Your task to perform on an android device: turn off improve location accuracy Image 0: 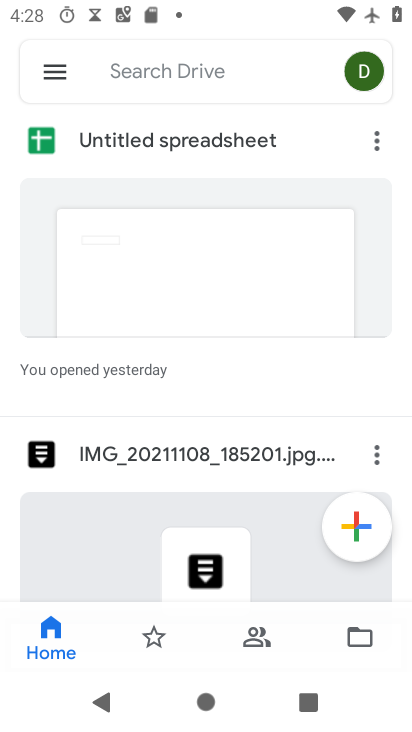
Step 0: press home button
Your task to perform on an android device: turn off improve location accuracy Image 1: 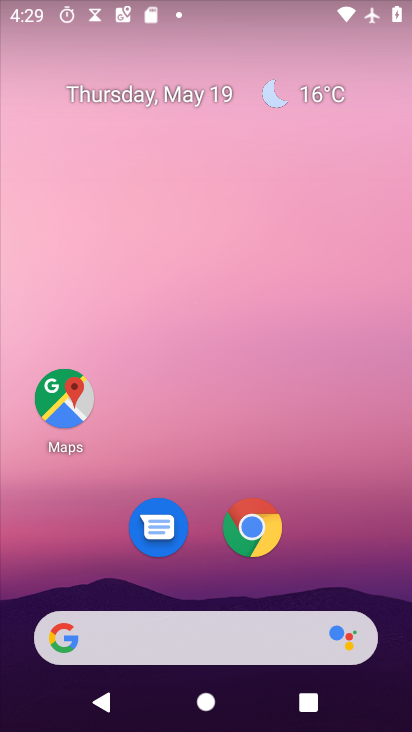
Step 1: drag from (329, 565) to (252, 79)
Your task to perform on an android device: turn off improve location accuracy Image 2: 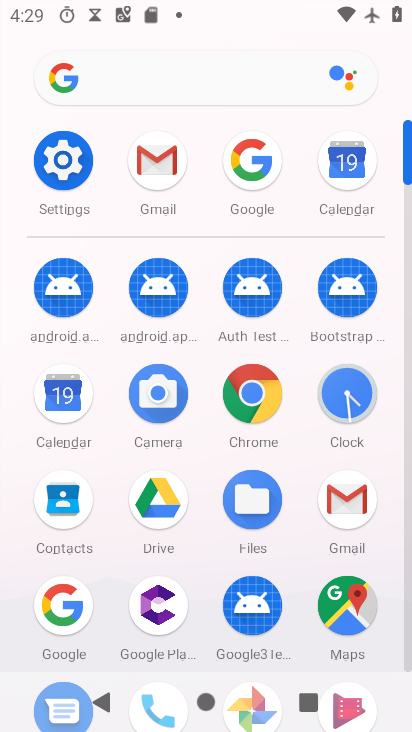
Step 2: click (62, 171)
Your task to perform on an android device: turn off improve location accuracy Image 3: 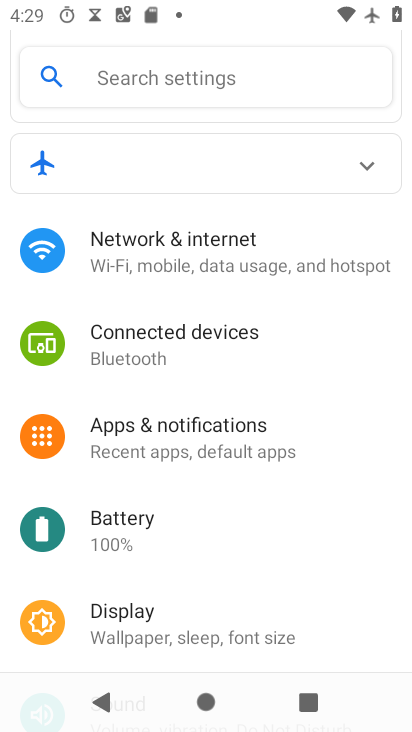
Step 3: drag from (244, 567) to (179, 82)
Your task to perform on an android device: turn off improve location accuracy Image 4: 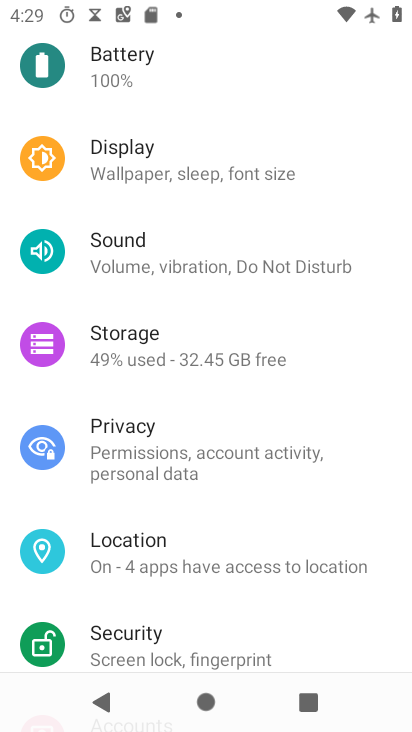
Step 4: click (196, 560)
Your task to perform on an android device: turn off improve location accuracy Image 5: 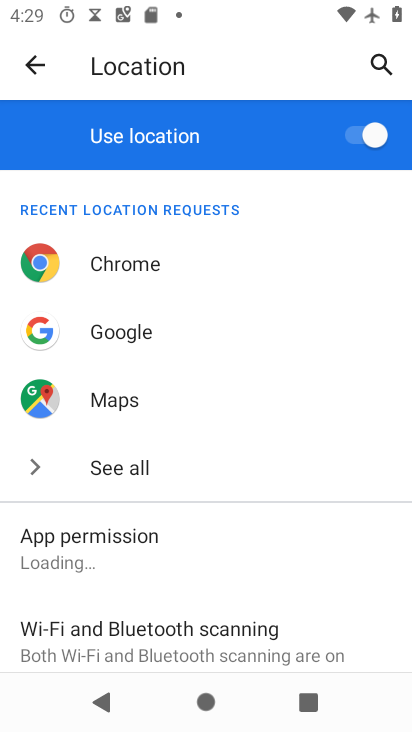
Step 5: drag from (239, 544) to (250, 120)
Your task to perform on an android device: turn off improve location accuracy Image 6: 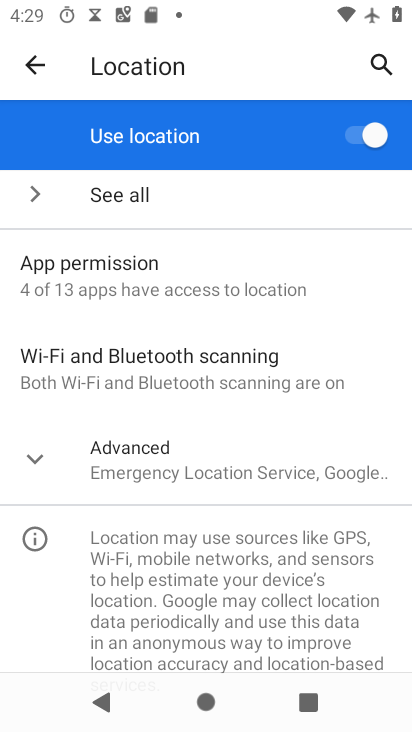
Step 6: click (194, 443)
Your task to perform on an android device: turn off improve location accuracy Image 7: 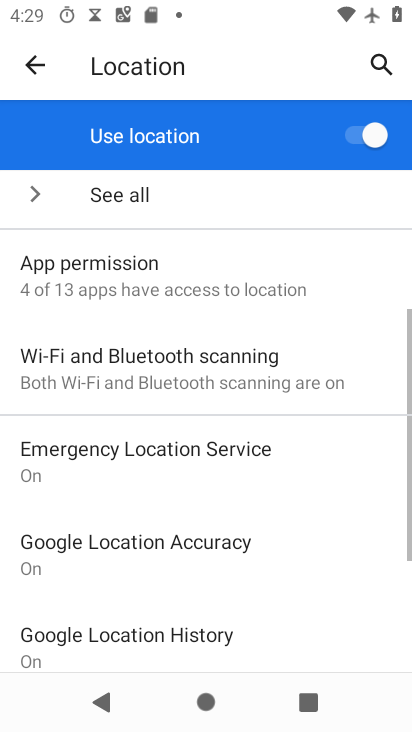
Step 7: click (204, 538)
Your task to perform on an android device: turn off improve location accuracy Image 8: 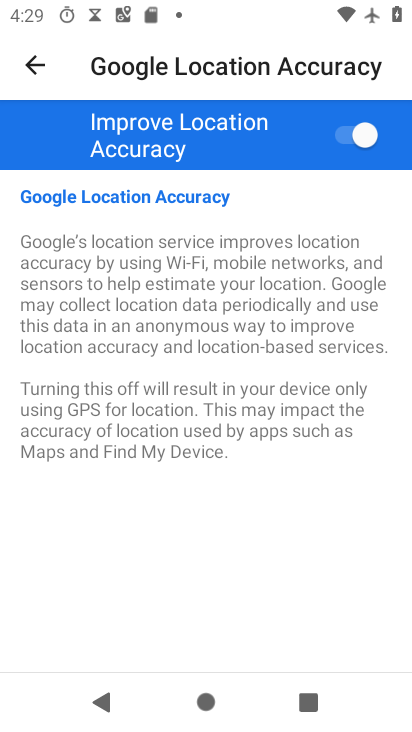
Step 8: click (373, 124)
Your task to perform on an android device: turn off improve location accuracy Image 9: 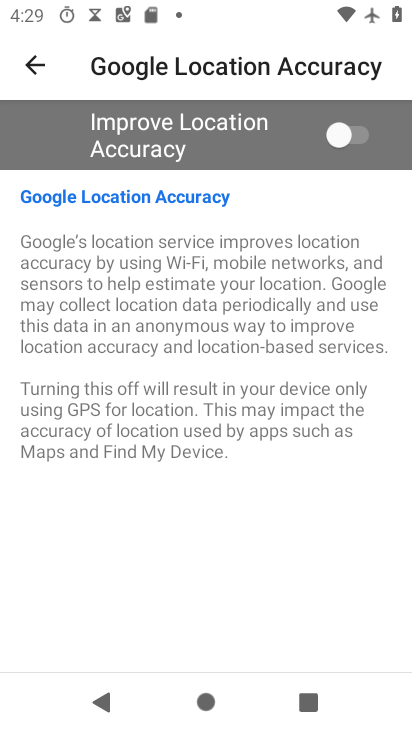
Step 9: task complete